Your task to perform on an android device: find which apps use the phone's location Image 0: 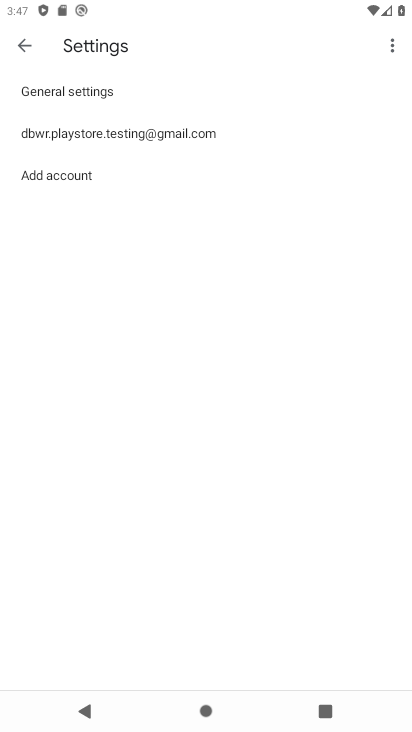
Step 0: press home button
Your task to perform on an android device: find which apps use the phone's location Image 1: 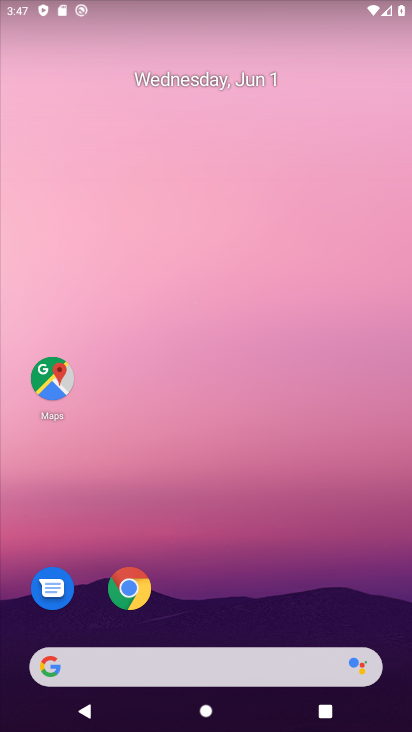
Step 1: drag from (237, 590) to (177, 68)
Your task to perform on an android device: find which apps use the phone's location Image 2: 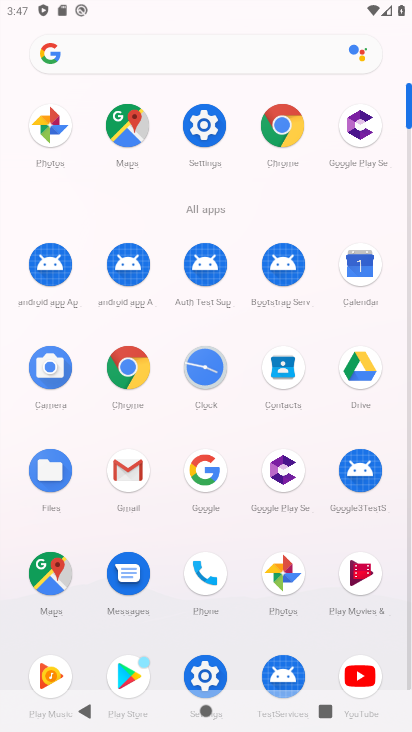
Step 2: click (200, 131)
Your task to perform on an android device: find which apps use the phone's location Image 3: 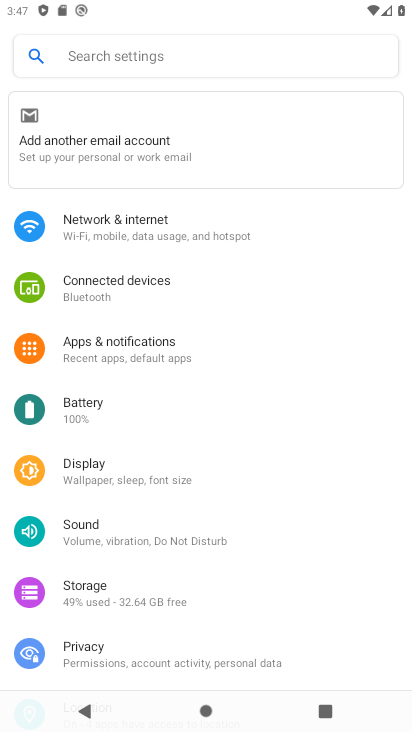
Step 3: drag from (175, 620) to (152, 221)
Your task to perform on an android device: find which apps use the phone's location Image 4: 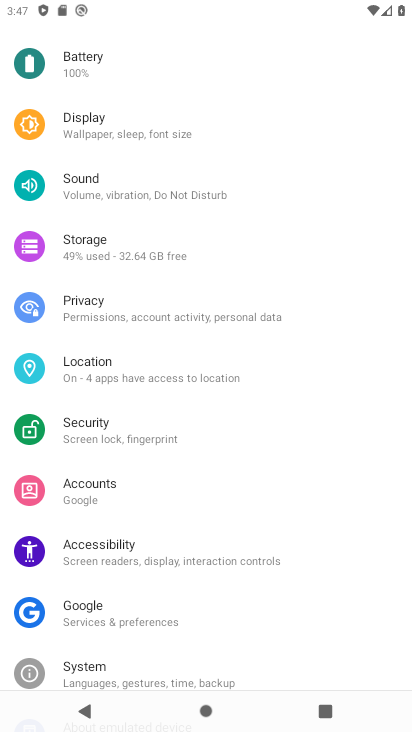
Step 4: click (173, 359)
Your task to perform on an android device: find which apps use the phone's location Image 5: 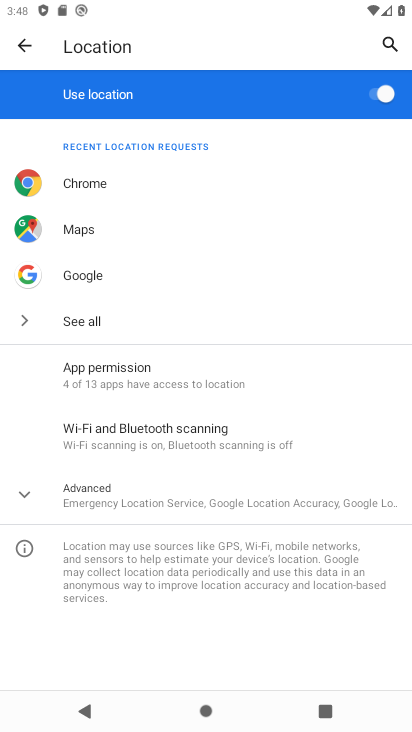
Step 5: click (173, 372)
Your task to perform on an android device: find which apps use the phone's location Image 6: 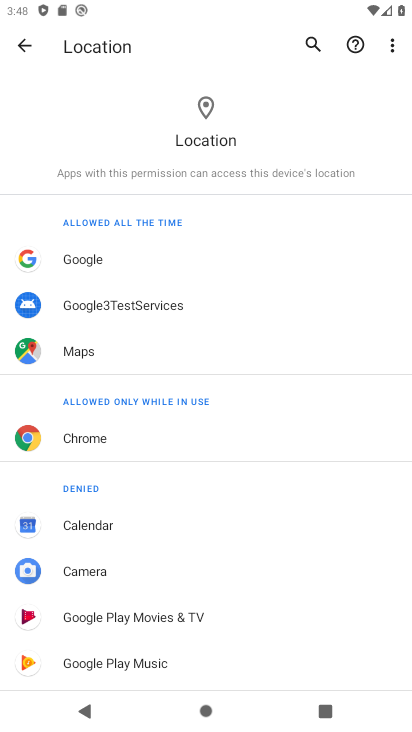
Step 6: task complete